Your task to perform on an android device: Open settings Image 0: 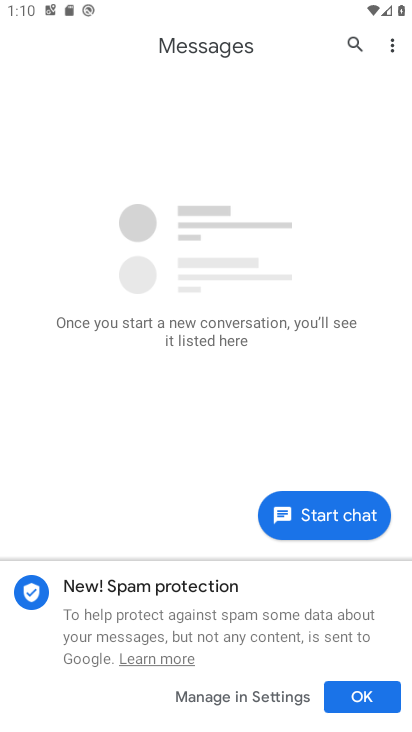
Step 0: press home button
Your task to perform on an android device: Open settings Image 1: 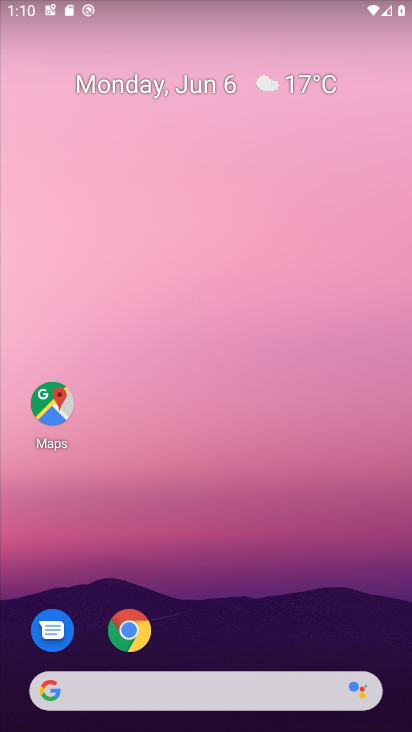
Step 1: drag from (128, 726) to (203, 1)
Your task to perform on an android device: Open settings Image 2: 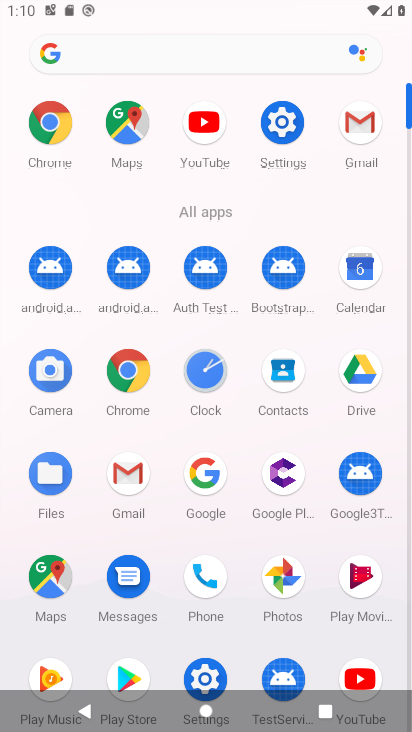
Step 2: click (290, 128)
Your task to perform on an android device: Open settings Image 3: 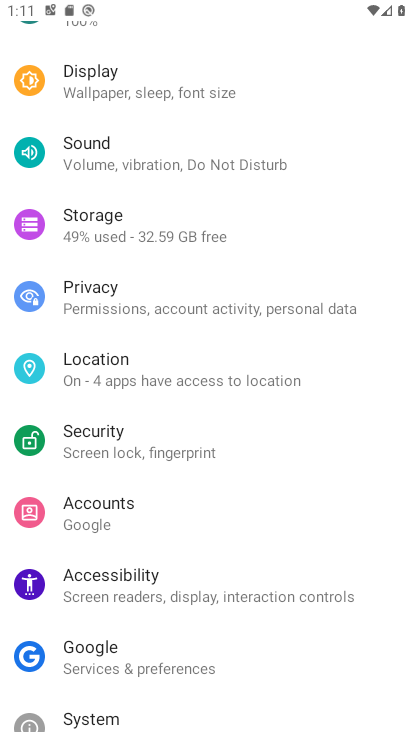
Step 3: task complete